Your task to perform on an android device: Open battery settings Image 0: 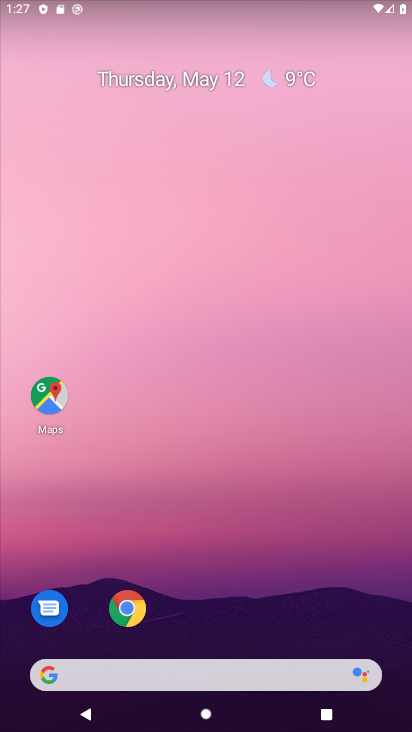
Step 0: drag from (202, 610) to (92, 170)
Your task to perform on an android device: Open battery settings Image 1: 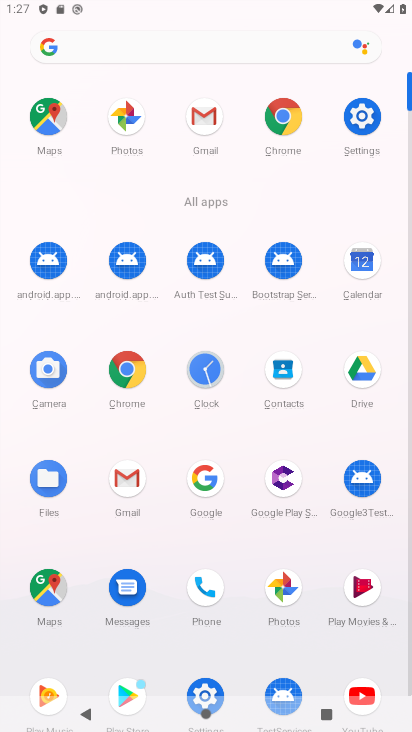
Step 1: click (359, 127)
Your task to perform on an android device: Open battery settings Image 2: 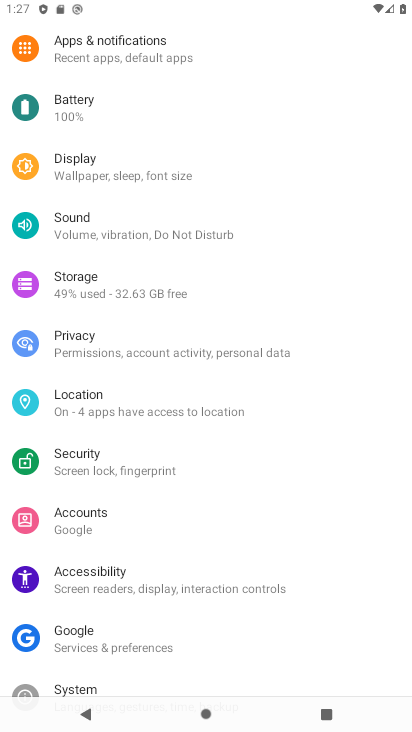
Step 2: click (98, 101)
Your task to perform on an android device: Open battery settings Image 3: 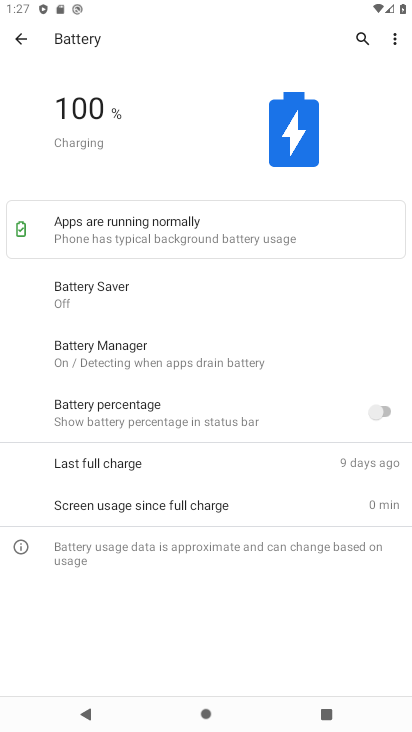
Step 3: task complete